Your task to perform on an android device: turn off javascript in the chrome app Image 0: 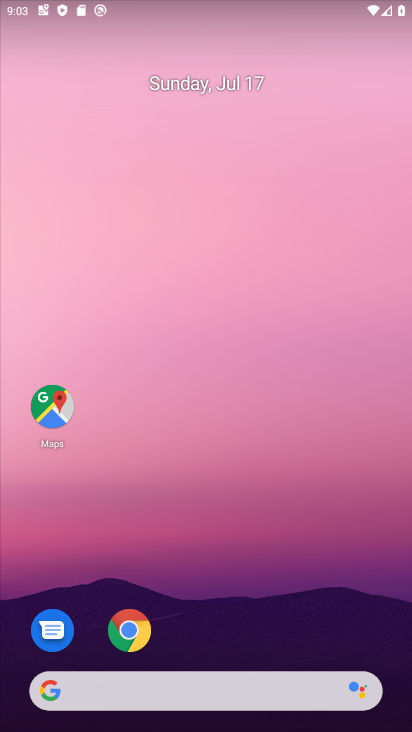
Step 0: drag from (351, 615) to (364, 120)
Your task to perform on an android device: turn off javascript in the chrome app Image 1: 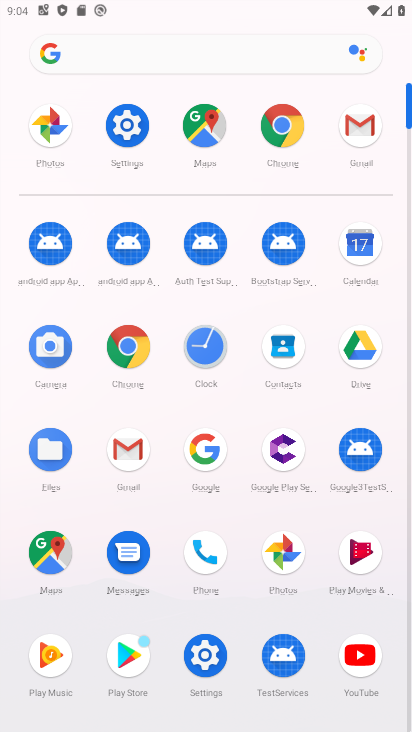
Step 1: click (286, 126)
Your task to perform on an android device: turn off javascript in the chrome app Image 2: 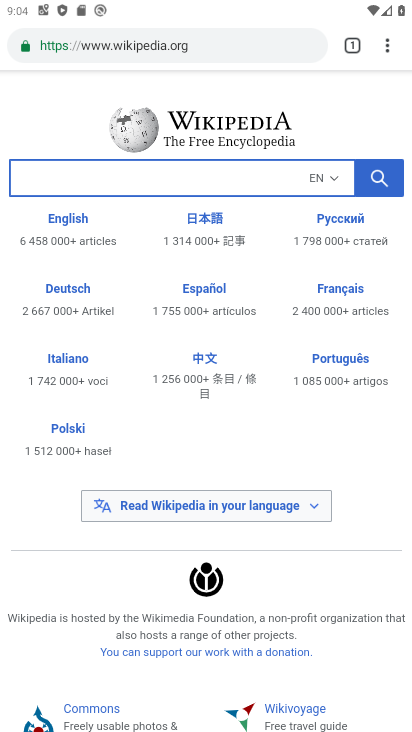
Step 2: click (385, 52)
Your task to perform on an android device: turn off javascript in the chrome app Image 3: 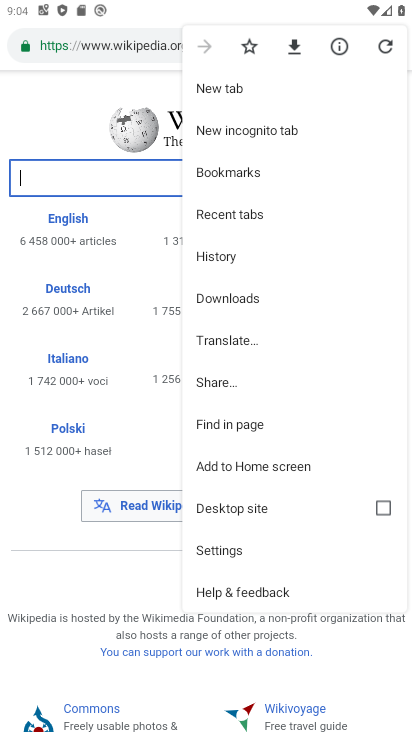
Step 3: click (240, 551)
Your task to perform on an android device: turn off javascript in the chrome app Image 4: 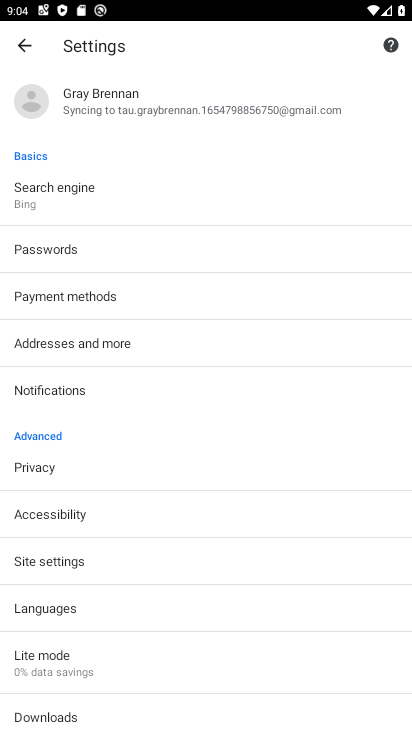
Step 4: click (222, 555)
Your task to perform on an android device: turn off javascript in the chrome app Image 5: 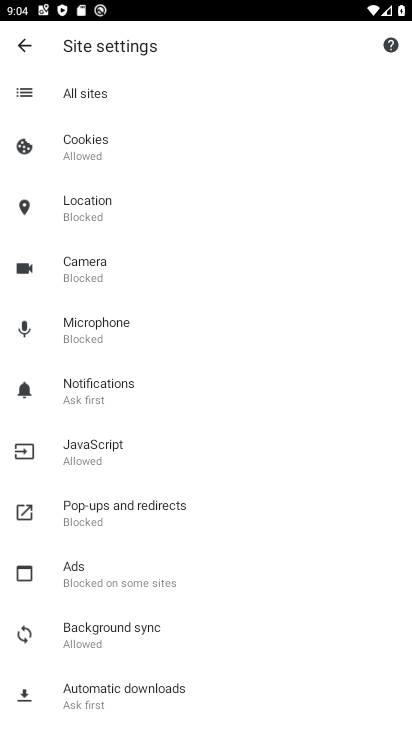
Step 5: drag from (364, 534) to (368, 458)
Your task to perform on an android device: turn off javascript in the chrome app Image 6: 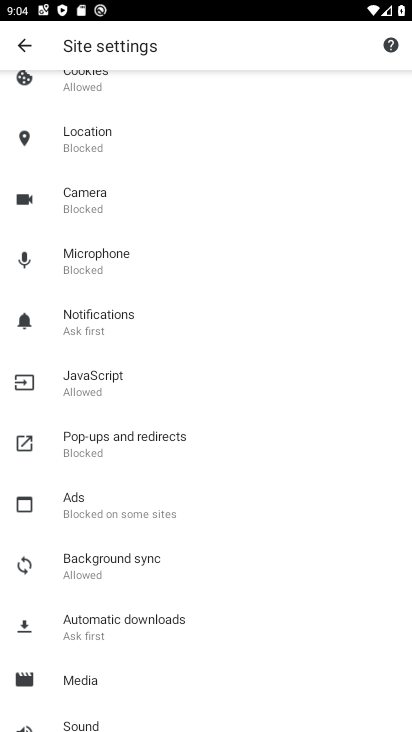
Step 6: drag from (353, 512) to (357, 430)
Your task to perform on an android device: turn off javascript in the chrome app Image 7: 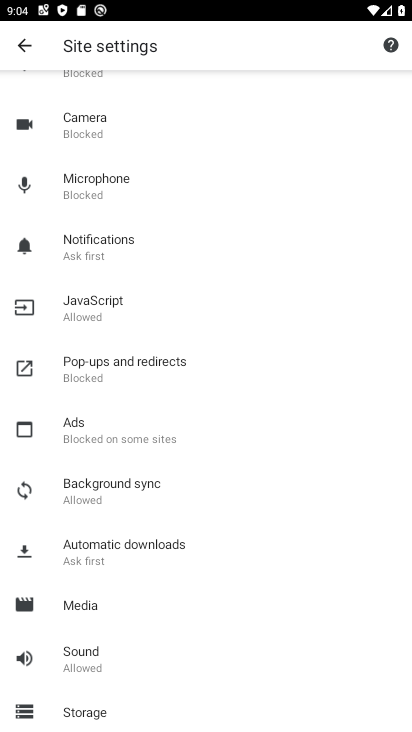
Step 7: drag from (353, 580) to (347, 493)
Your task to perform on an android device: turn off javascript in the chrome app Image 8: 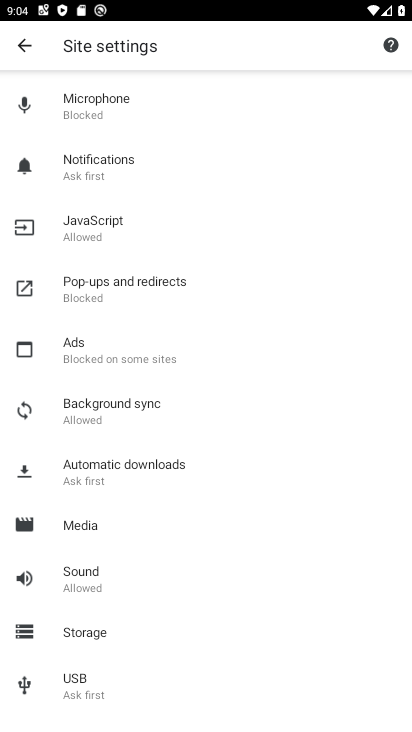
Step 8: drag from (356, 601) to (346, 509)
Your task to perform on an android device: turn off javascript in the chrome app Image 9: 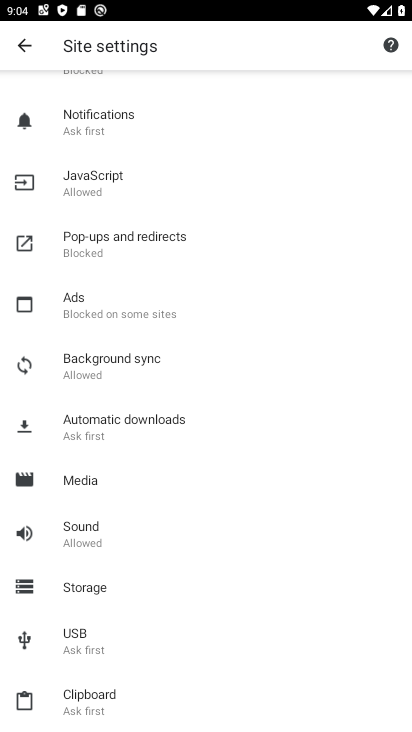
Step 9: drag from (346, 400) to (341, 456)
Your task to perform on an android device: turn off javascript in the chrome app Image 10: 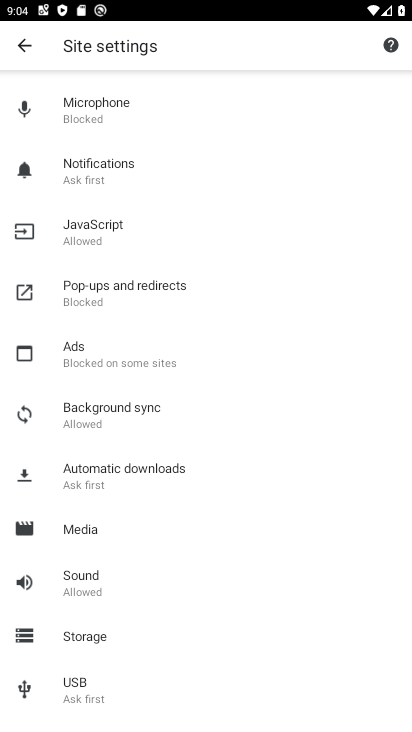
Step 10: drag from (336, 373) to (332, 448)
Your task to perform on an android device: turn off javascript in the chrome app Image 11: 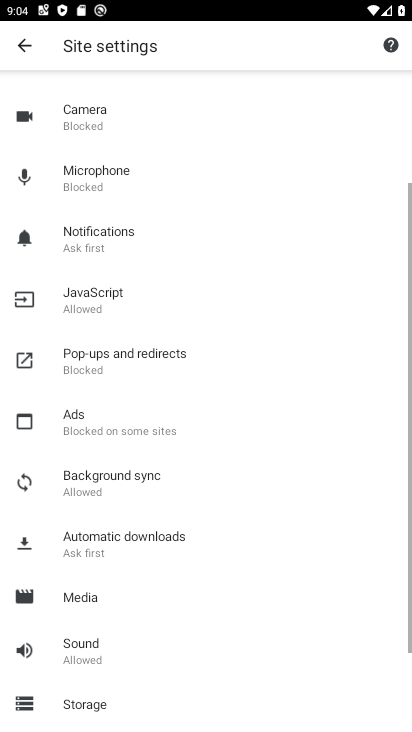
Step 11: drag from (330, 348) to (323, 447)
Your task to perform on an android device: turn off javascript in the chrome app Image 12: 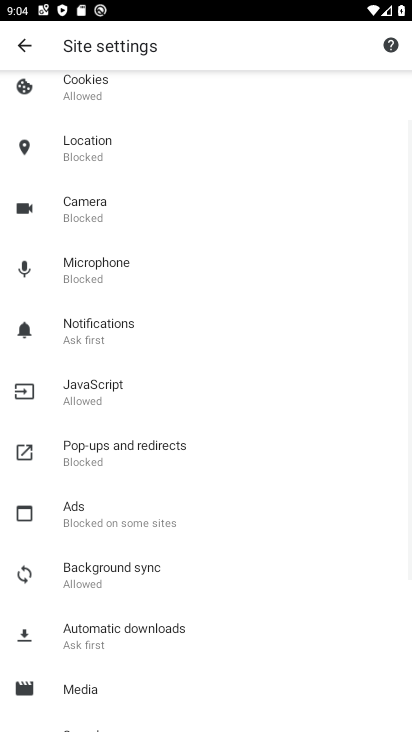
Step 12: drag from (323, 352) to (320, 466)
Your task to perform on an android device: turn off javascript in the chrome app Image 13: 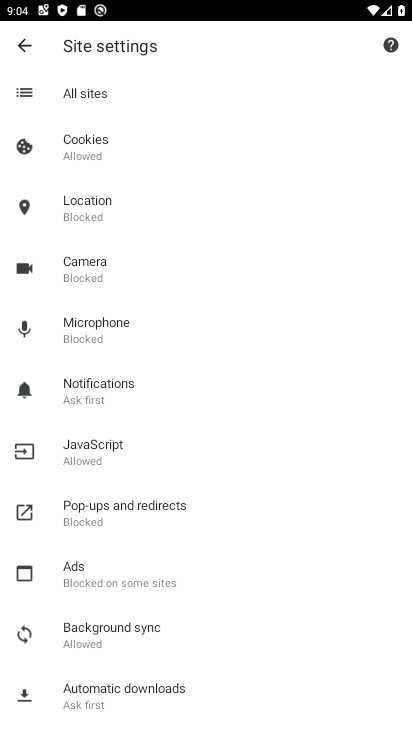
Step 13: click (212, 472)
Your task to perform on an android device: turn off javascript in the chrome app Image 14: 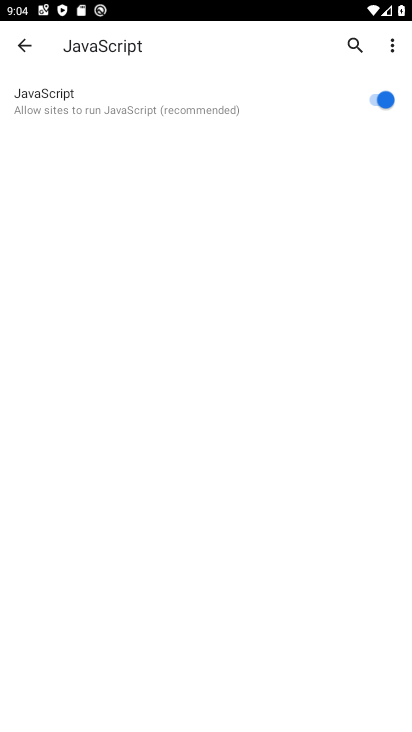
Step 14: click (381, 105)
Your task to perform on an android device: turn off javascript in the chrome app Image 15: 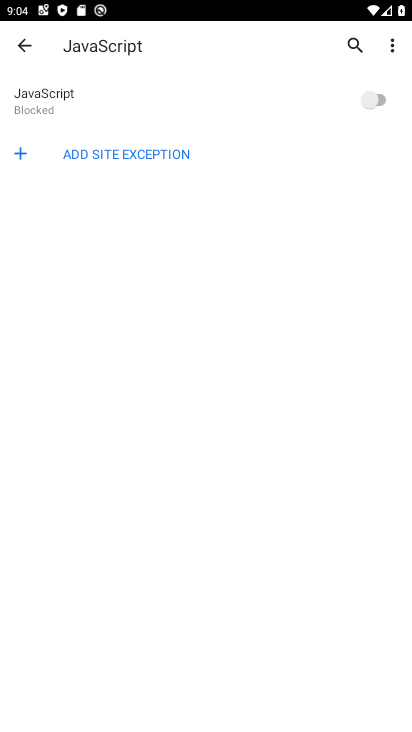
Step 15: task complete